Your task to perform on an android device: empty trash in the gmail app Image 0: 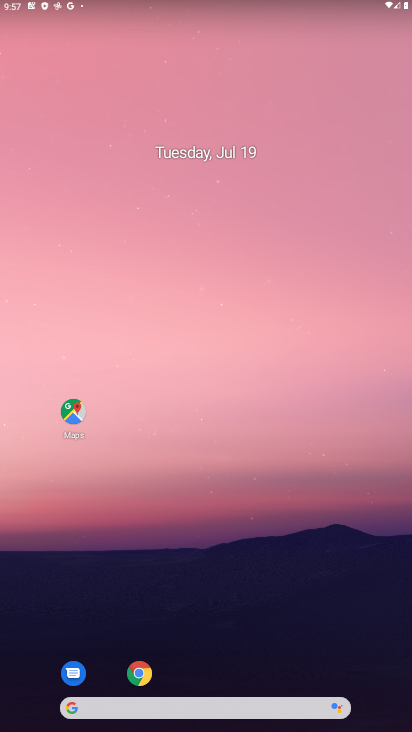
Step 0: drag from (212, 671) to (159, 82)
Your task to perform on an android device: empty trash in the gmail app Image 1: 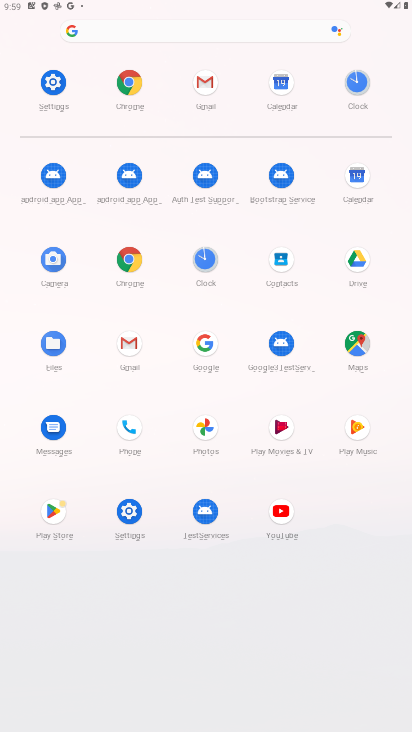
Step 1: click (200, 78)
Your task to perform on an android device: empty trash in the gmail app Image 2: 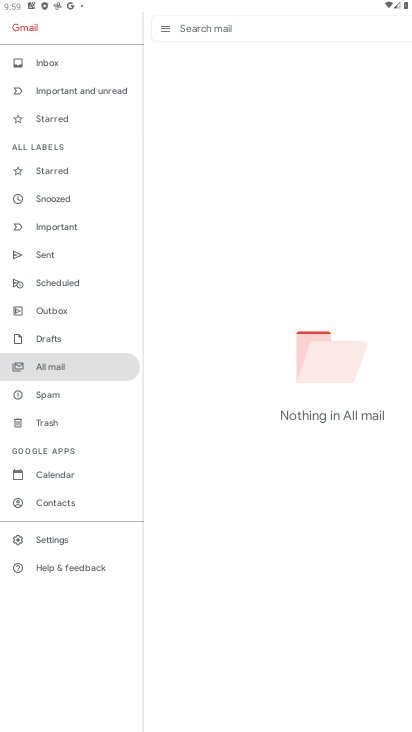
Step 2: click (69, 417)
Your task to perform on an android device: empty trash in the gmail app Image 3: 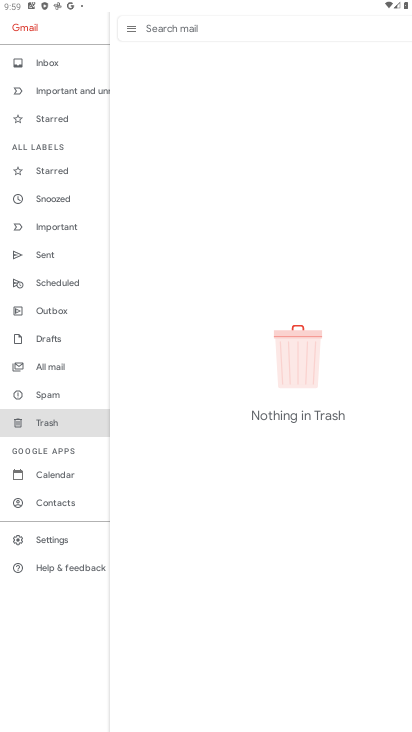
Step 3: task complete